Your task to perform on an android device: Open Chrome and go to the settings page Image 0: 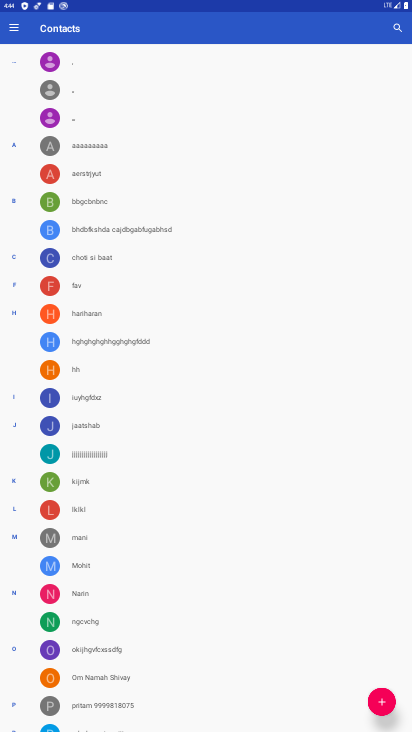
Step 0: press home button
Your task to perform on an android device: Open Chrome and go to the settings page Image 1: 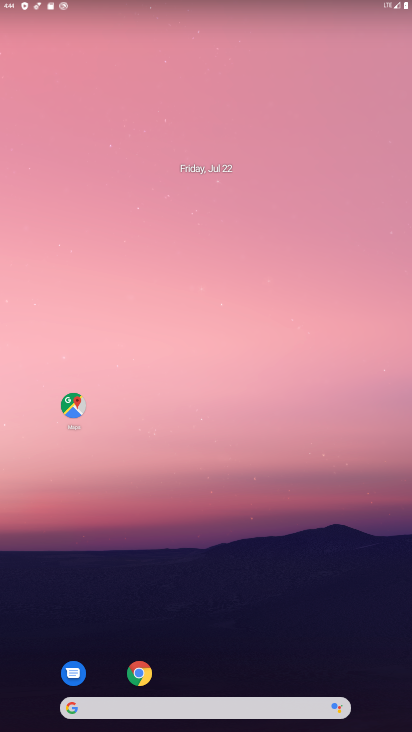
Step 1: click (133, 669)
Your task to perform on an android device: Open Chrome and go to the settings page Image 2: 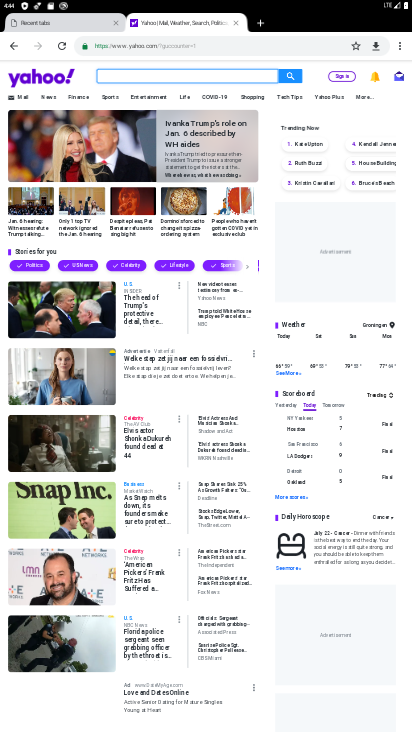
Step 2: task complete